Your task to perform on an android device: Open the calendar app, open the side menu, and click the "Day" option Image 0: 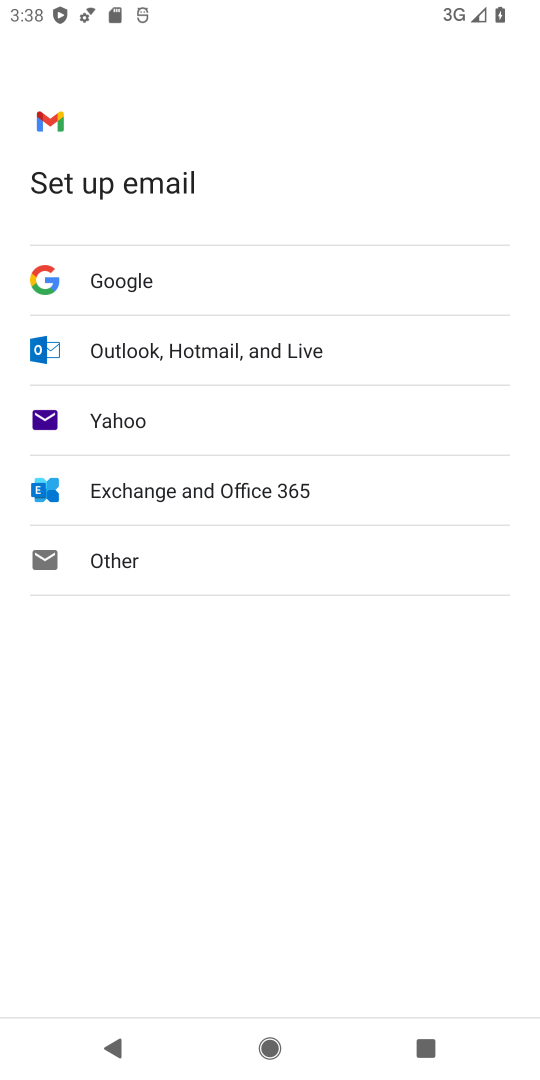
Step 0: press home button
Your task to perform on an android device: Open the calendar app, open the side menu, and click the "Day" option Image 1: 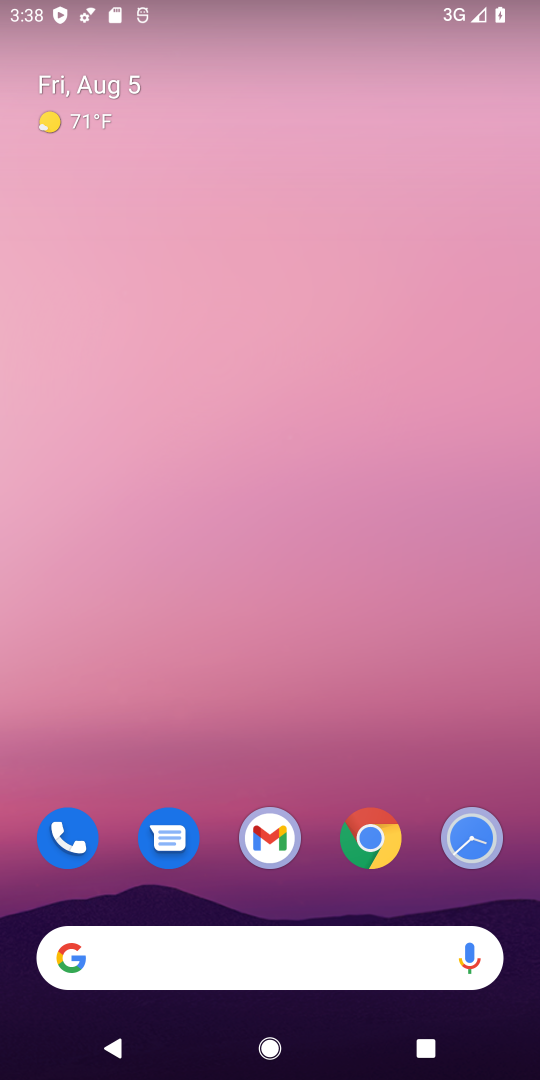
Step 1: drag from (275, 916) to (284, 173)
Your task to perform on an android device: Open the calendar app, open the side menu, and click the "Day" option Image 2: 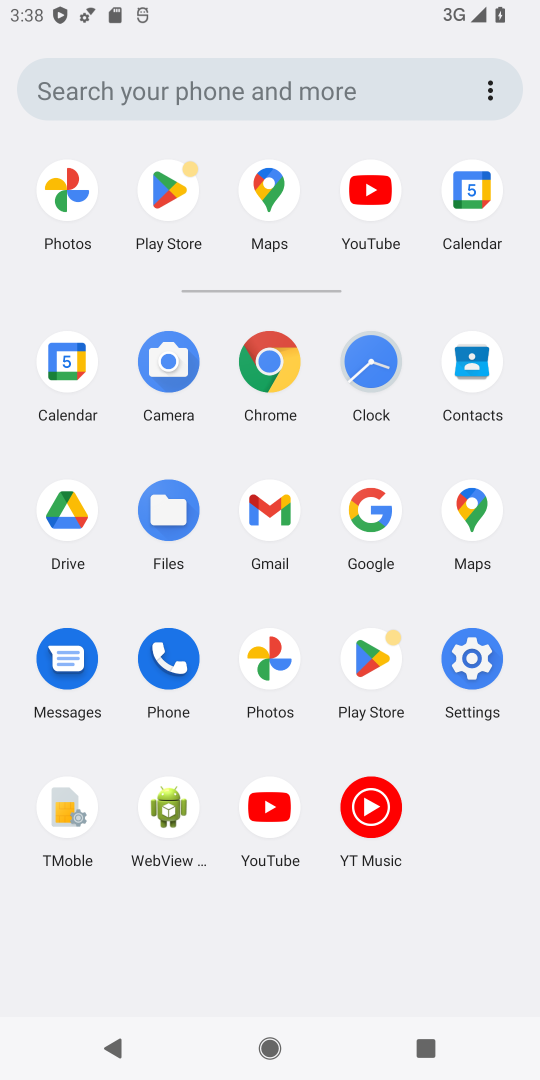
Step 2: click (457, 187)
Your task to perform on an android device: Open the calendar app, open the side menu, and click the "Day" option Image 3: 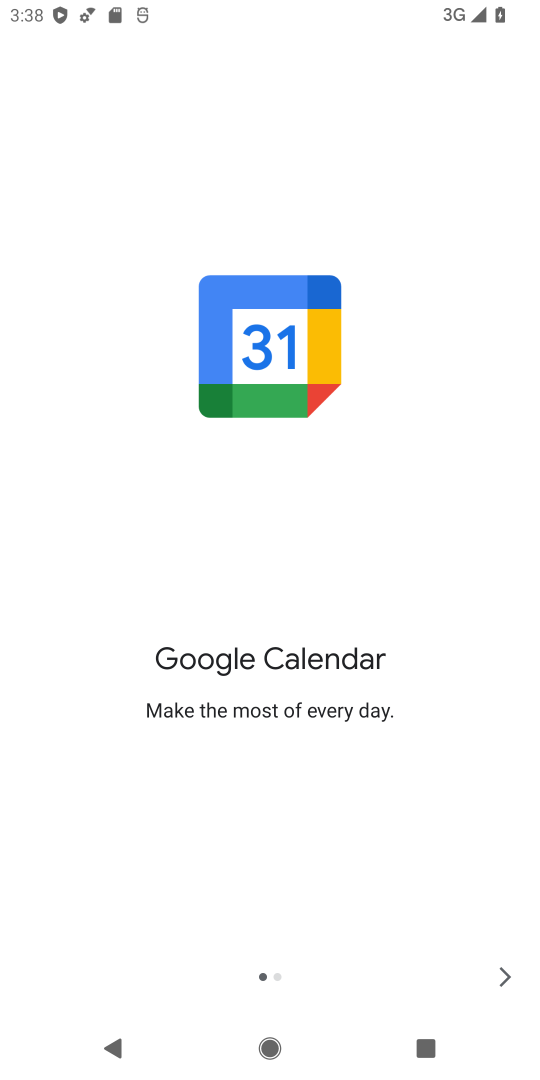
Step 3: click (490, 959)
Your task to perform on an android device: Open the calendar app, open the side menu, and click the "Day" option Image 4: 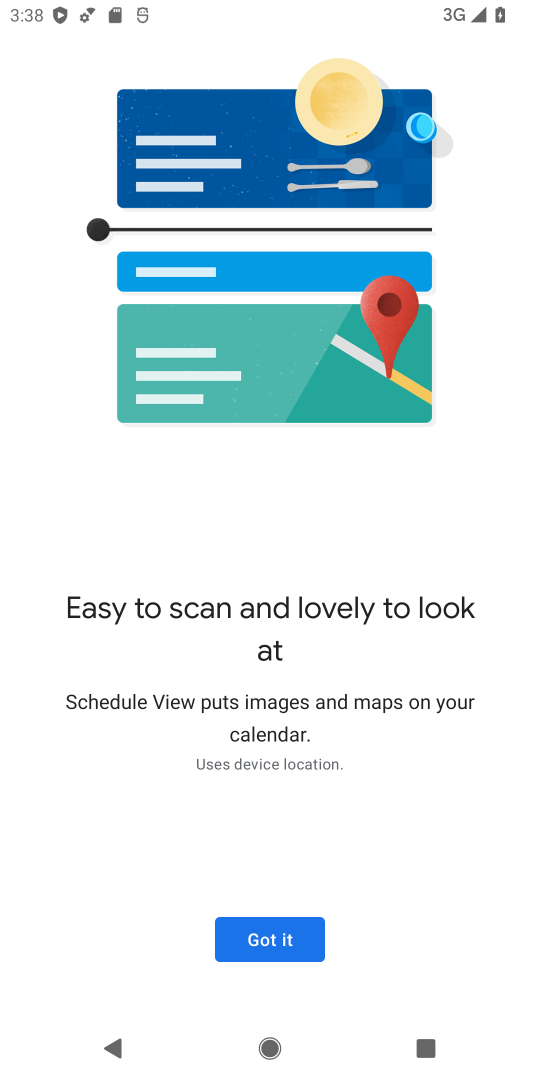
Step 4: click (504, 978)
Your task to perform on an android device: Open the calendar app, open the side menu, and click the "Day" option Image 5: 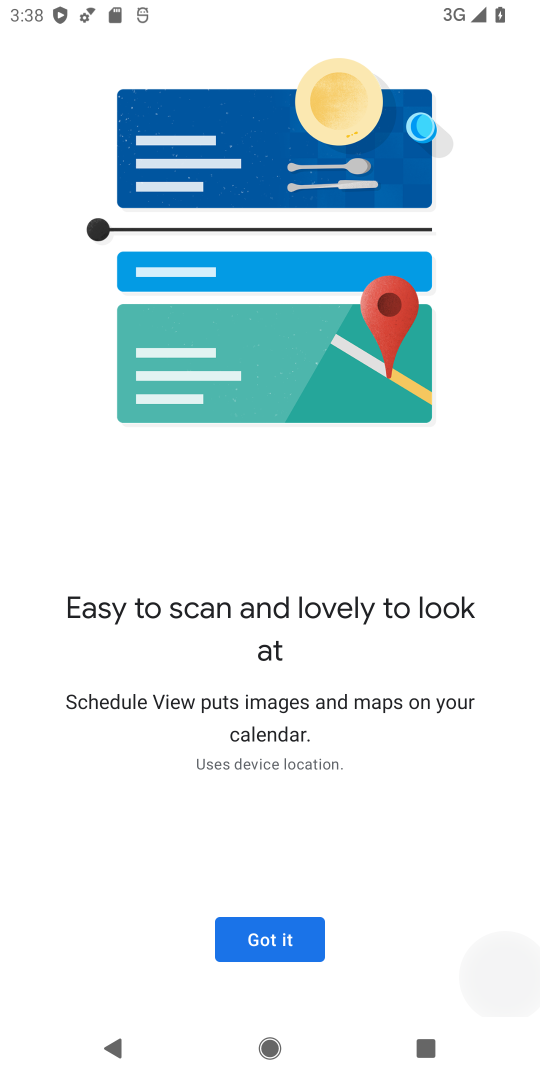
Step 5: click (228, 916)
Your task to perform on an android device: Open the calendar app, open the side menu, and click the "Day" option Image 6: 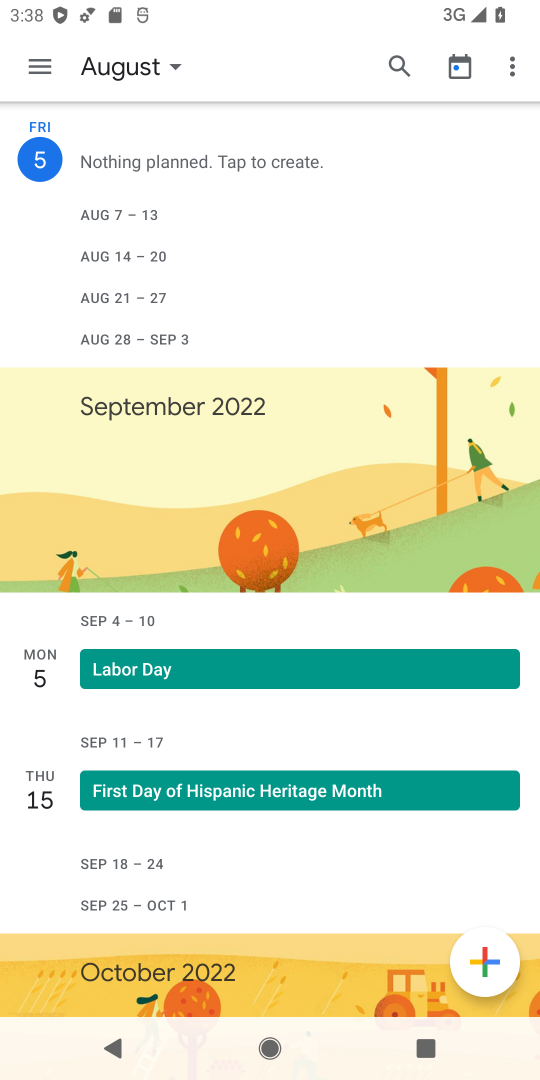
Step 6: click (34, 58)
Your task to perform on an android device: Open the calendar app, open the side menu, and click the "Day" option Image 7: 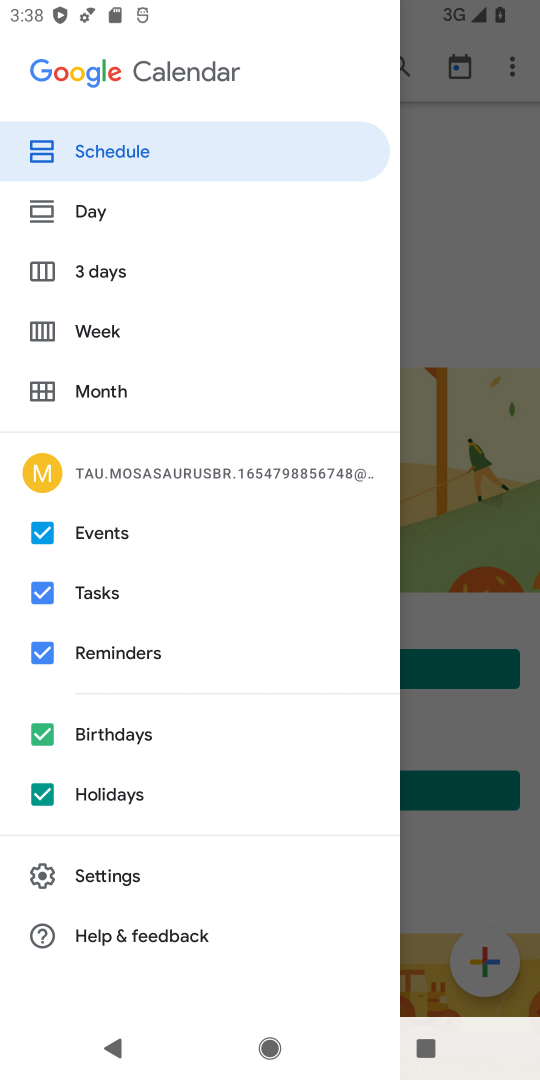
Step 7: click (120, 216)
Your task to perform on an android device: Open the calendar app, open the side menu, and click the "Day" option Image 8: 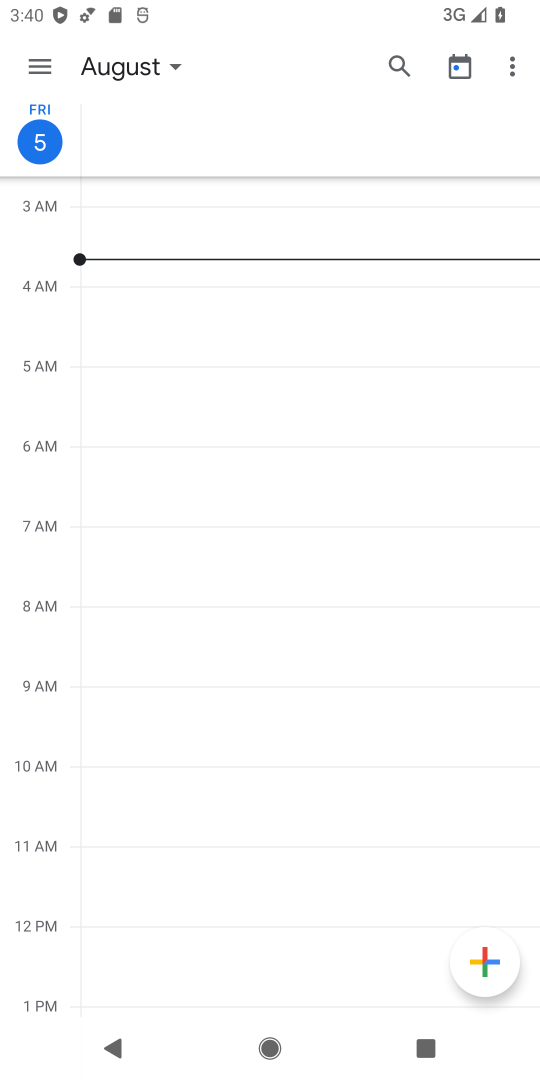
Step 8: task complete